Your task to perform on an android device: move an email to a new category in the gmail app Image 0: 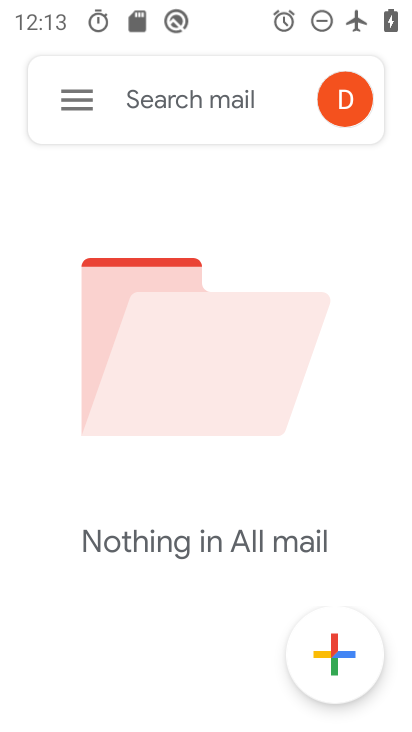
Step 0: press home button
Your task to perform on an android device: move an email to a new category in the gmail app Image 1: 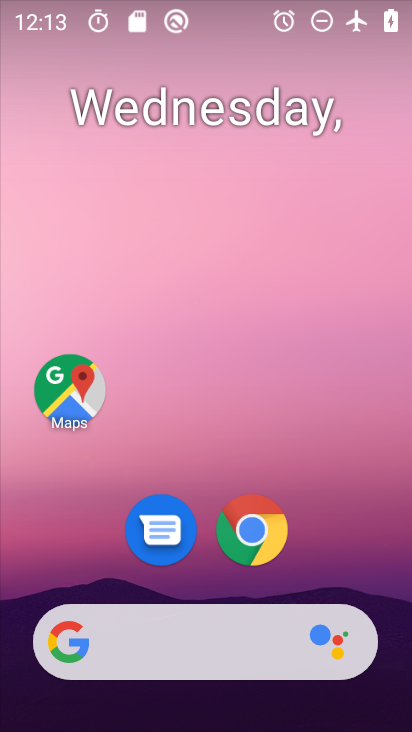
Step 1: drag from (351, 539) to (362, 121)
Your task to perform on an android device: move an email to a new category in the gmail app Image 2: 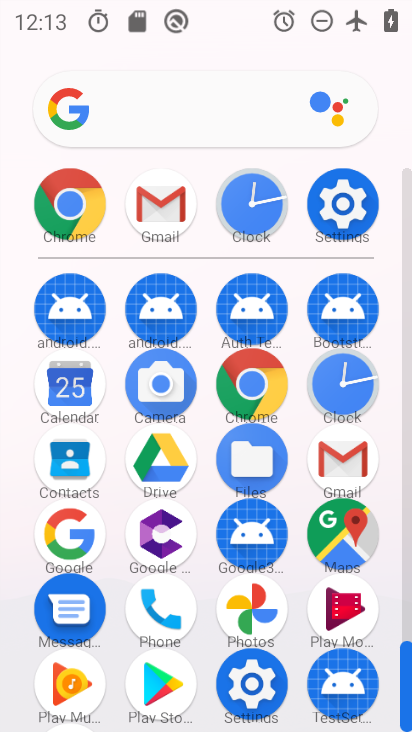
Step 2: click (157, 204)
Your task to perform on an android device: move an email to a new category in the gmail app Image 3: 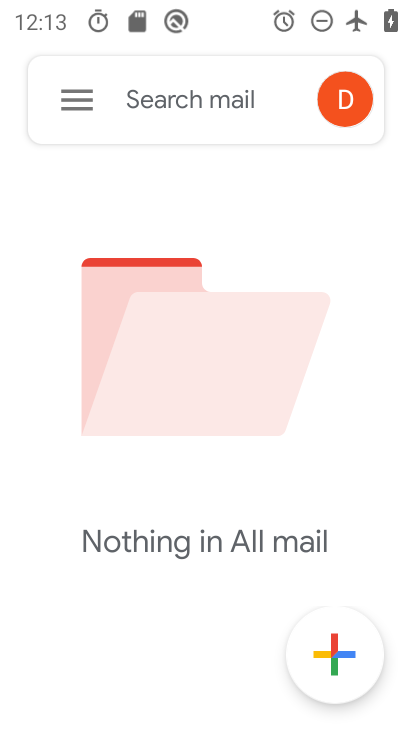
Step 3: click (70, 112)
Your task to perform on an android device: move an email to a new category in the gmail app Image 4: 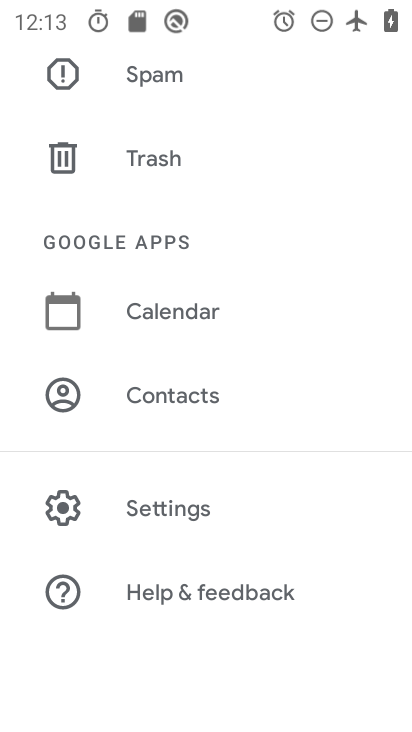
Step 4: drag from (237, 602) to (292, 288)
Your task to perform on an android device: move an email to a new category in the gmail app Image 5: 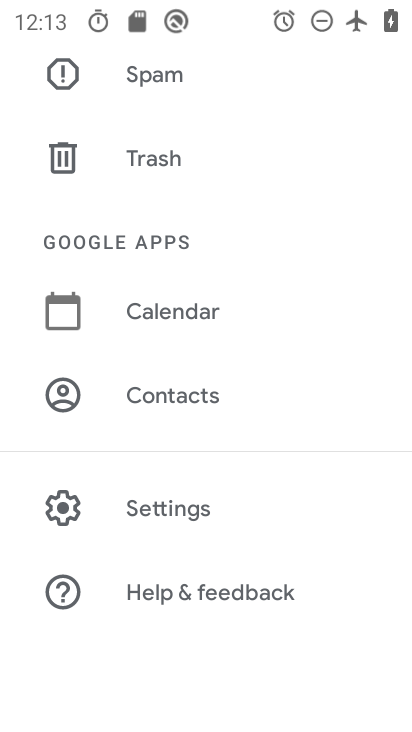
Step 5: click (140, 520)
Your task to perform on an android device: move an email to a new category in the gmail app Image 6: 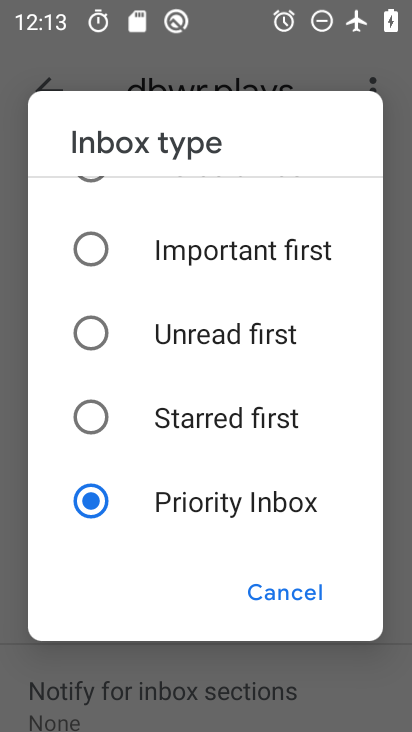
Step 6: click (300, 586)
Your task to perform on an android device: move an email to a new category in the gmail app Image 7: 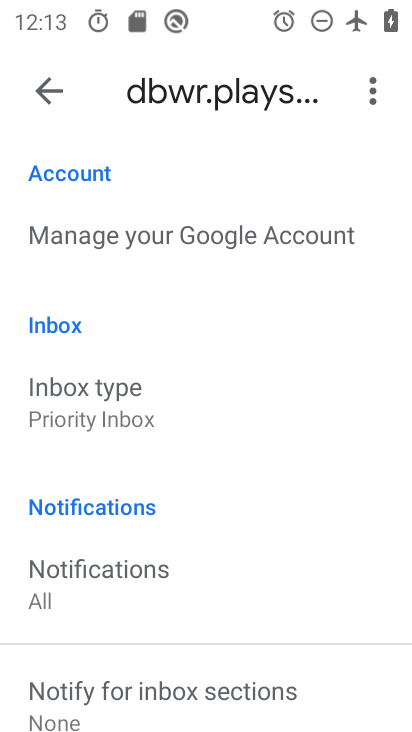
Step 7: drag from (214, 566) to (289, 286)
Your task to perform on an android device: move an email to a new category in the gmail app Image 8: 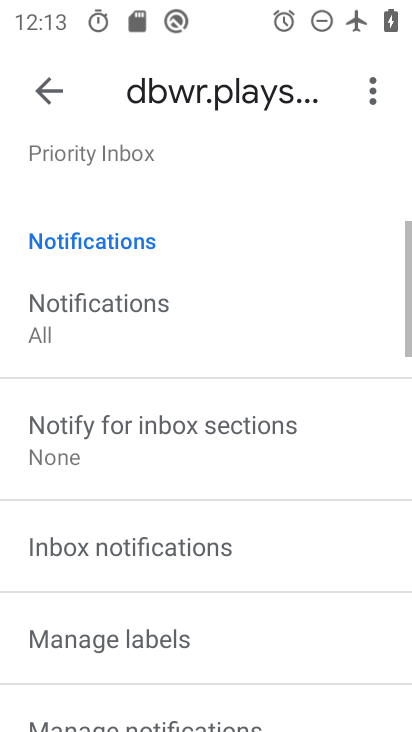
Step 8: drag from (179, 600) to (279, 325)
Your task to perform on an android device: move an email to a new category in the gmail app Image 9: 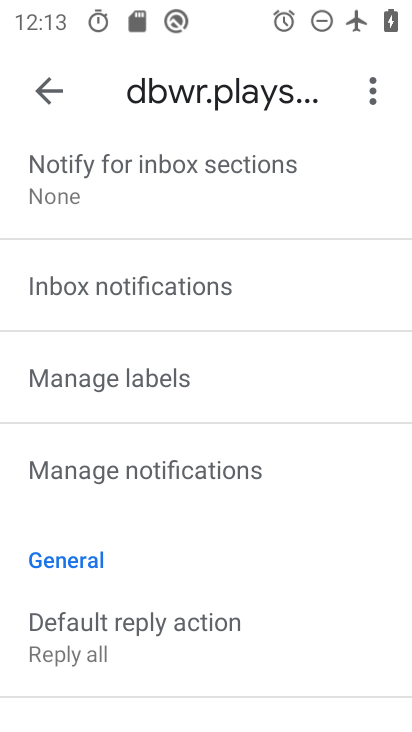
Step 9: click (42, 85)
Your task to perform on an android device: move an email to a new category in the gmail app Image 10: 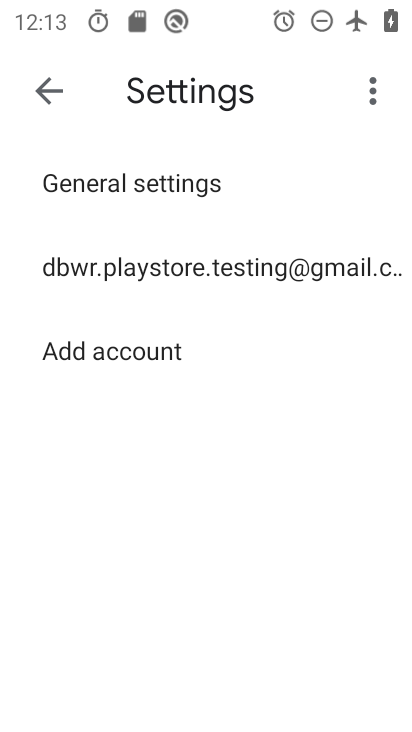
Step 10: click (42, 85)
Your task to perform on an android device: move an email to a new category in the gmail app Image 11: 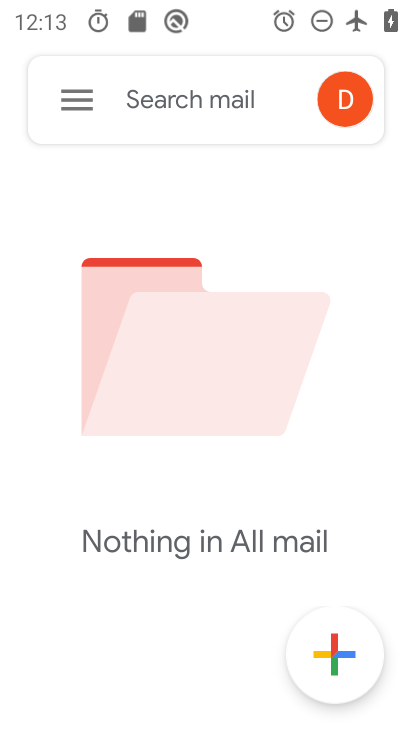
Step 11: click (46, 95)
Your task to perform on an android device: move an email to a new category in the gmail app Image 12: 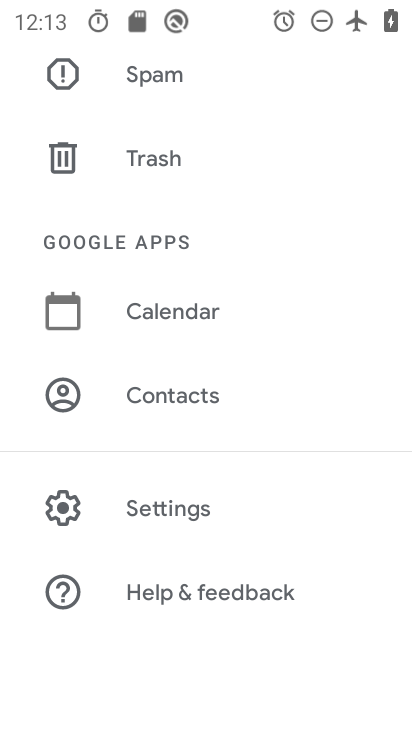
Step 12: drag from (172, 188) to (208, 593)
Your task to perform on an android device: move an email to a new category in the gmail app Image 13: 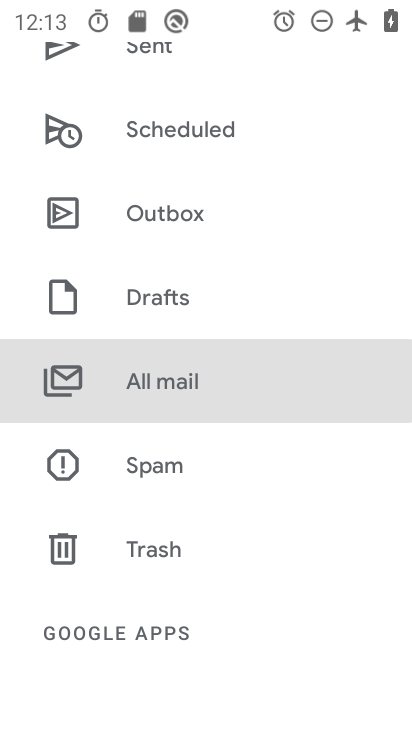
Step 13: click (164, 373)
Your task to perform on an android device: move an email to a new category in the gmail app Image 14: 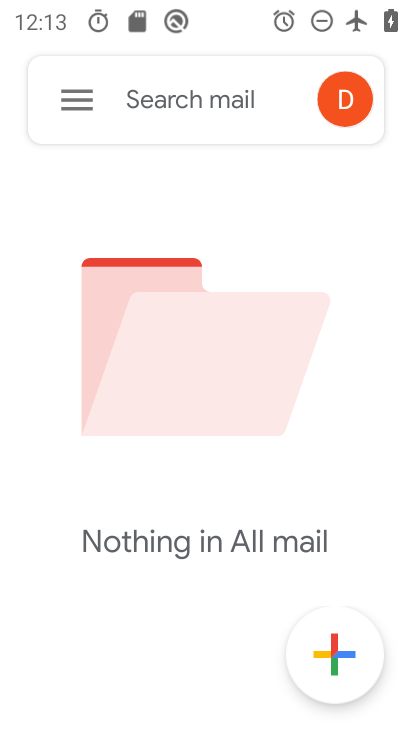
Step 14: task complete